Your task to perform on an android device: uninstall "PlayWell" Image 0: 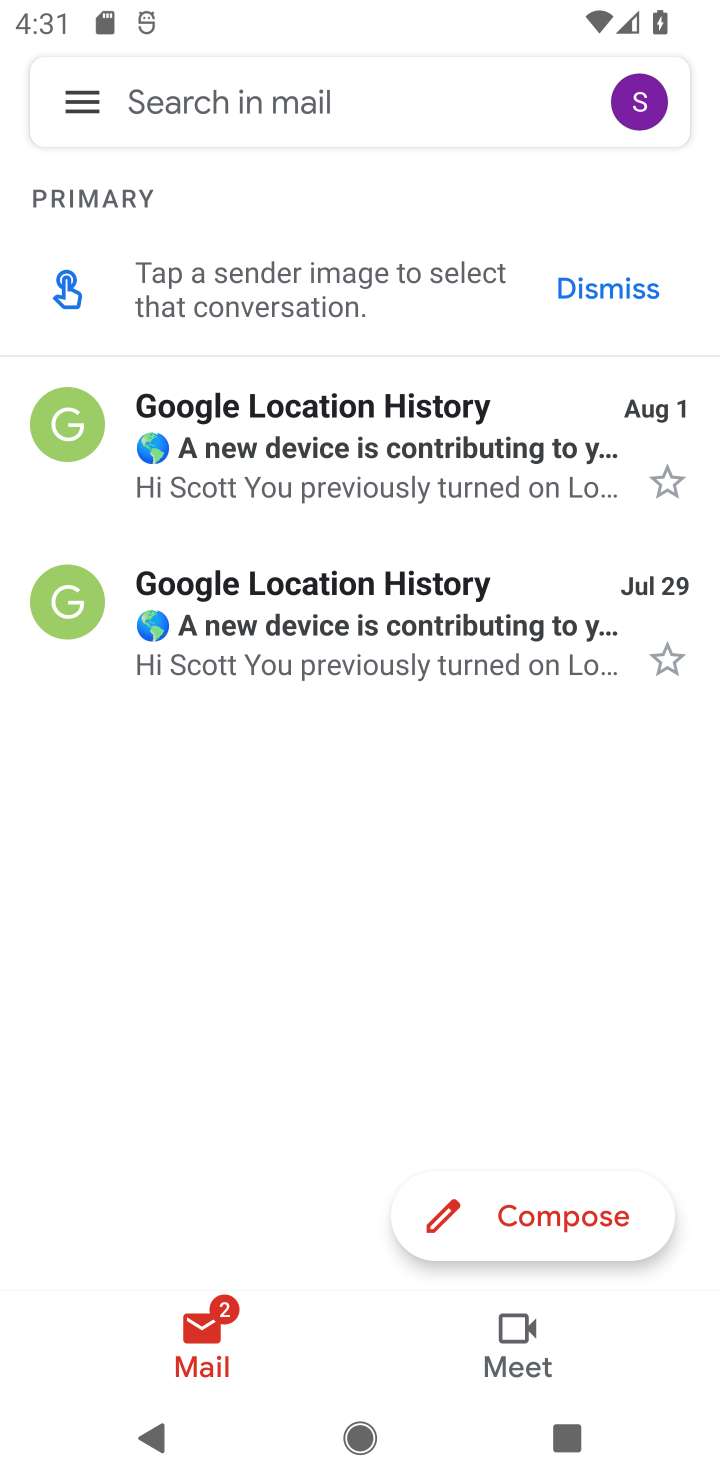
Step 0: press home button
Your task to perform on an android device: uninstall "PlayWell" Image 1: 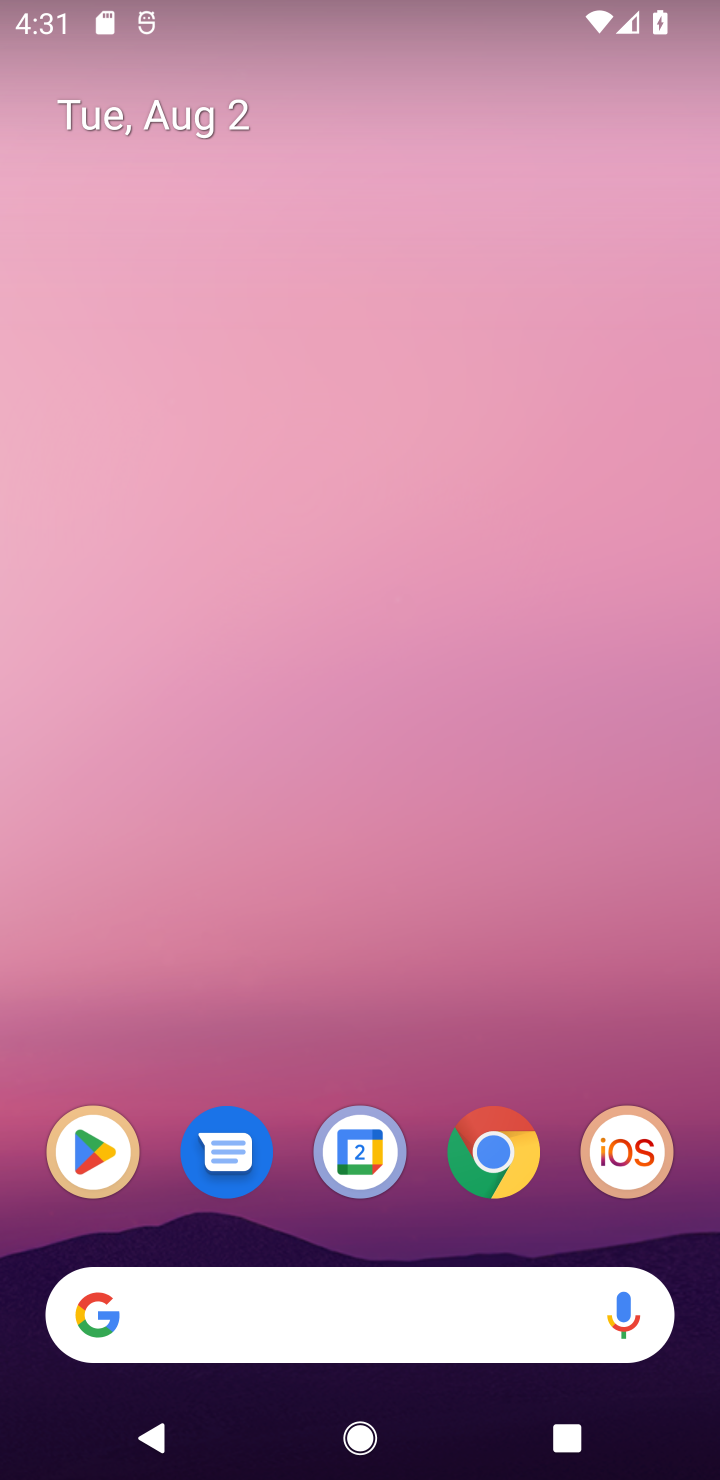
Step 1: drag from (383, 1221) to (421, 75)
Your task to perform on an android device: uninstall "PlayWell" Image 2: 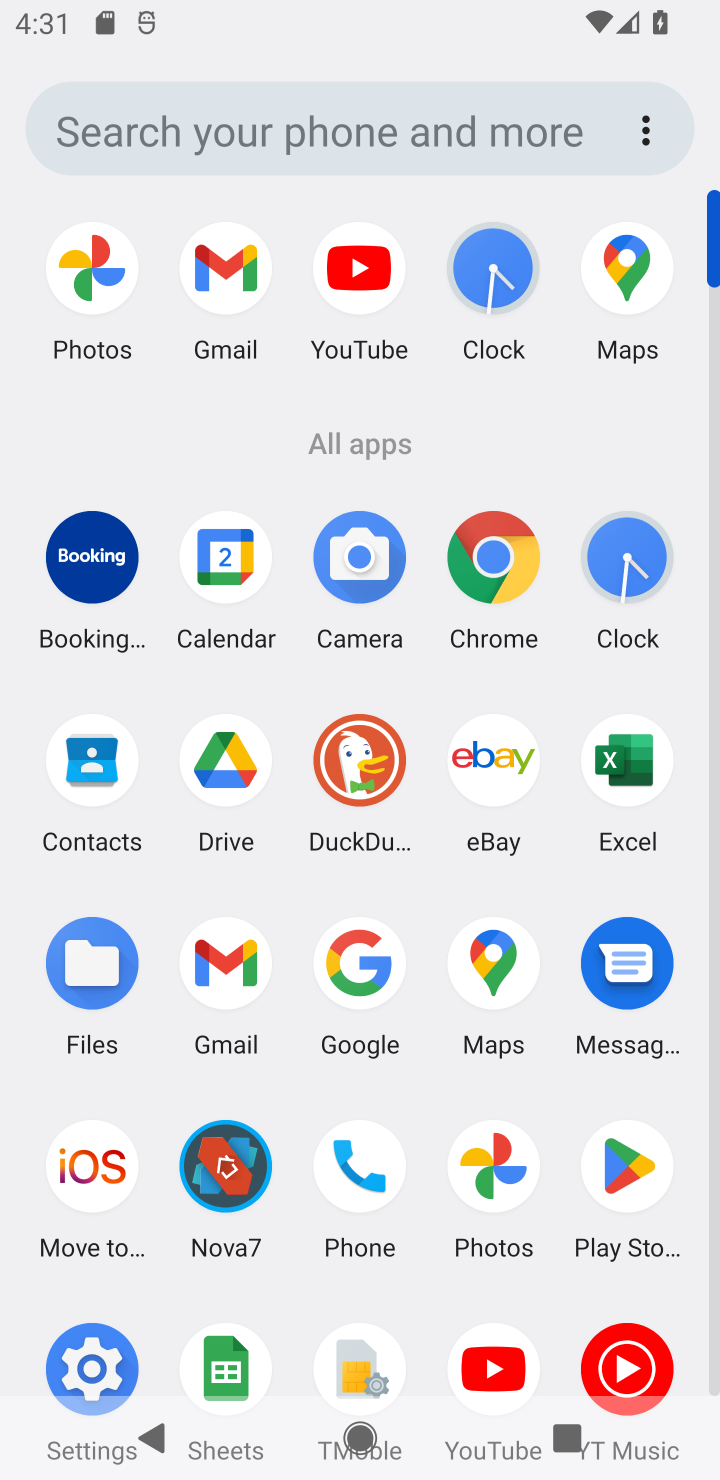
Step 2: click (625, 1161)
Your task to perform on an android device: uninstall "PlayWell" Image 3: 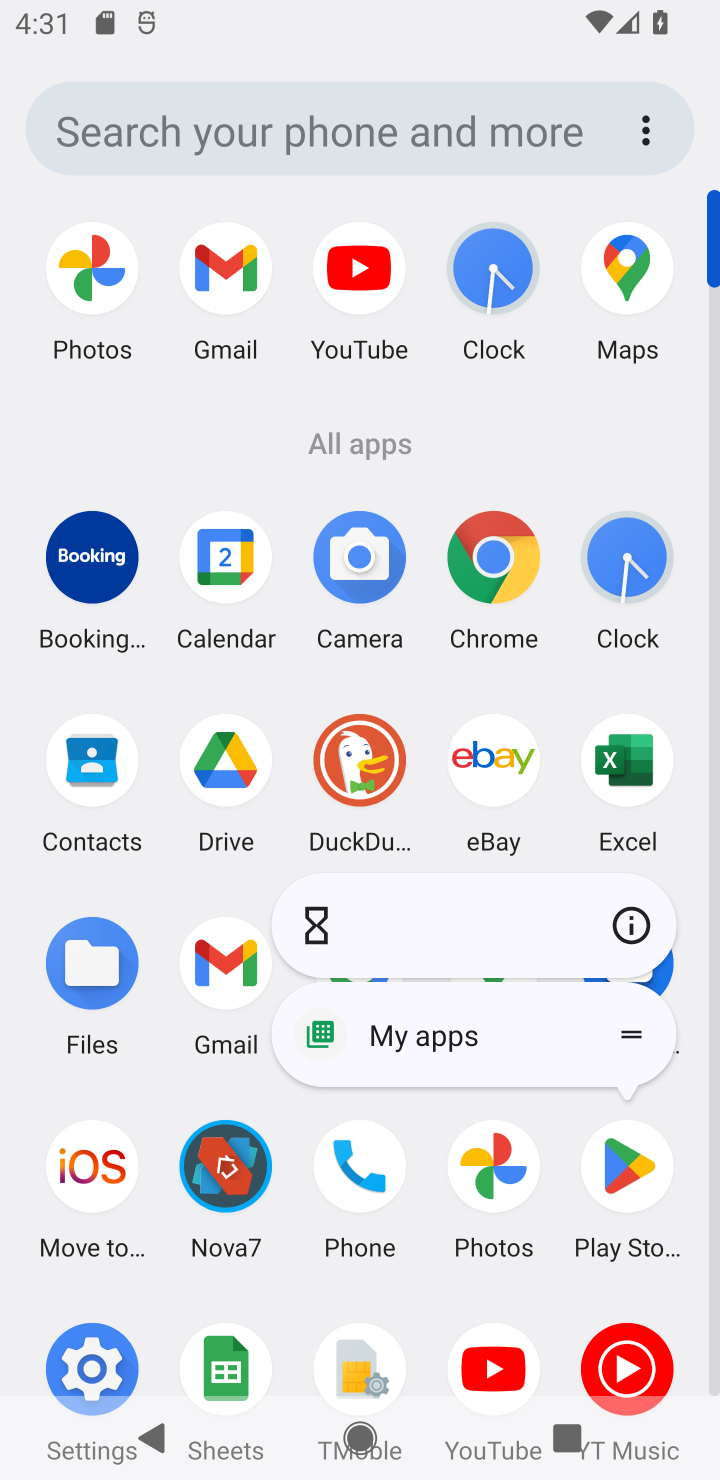
Step 3: click (622, 1177)
Your task to perform on an android device: uninstall "PlayWell" Image 4: 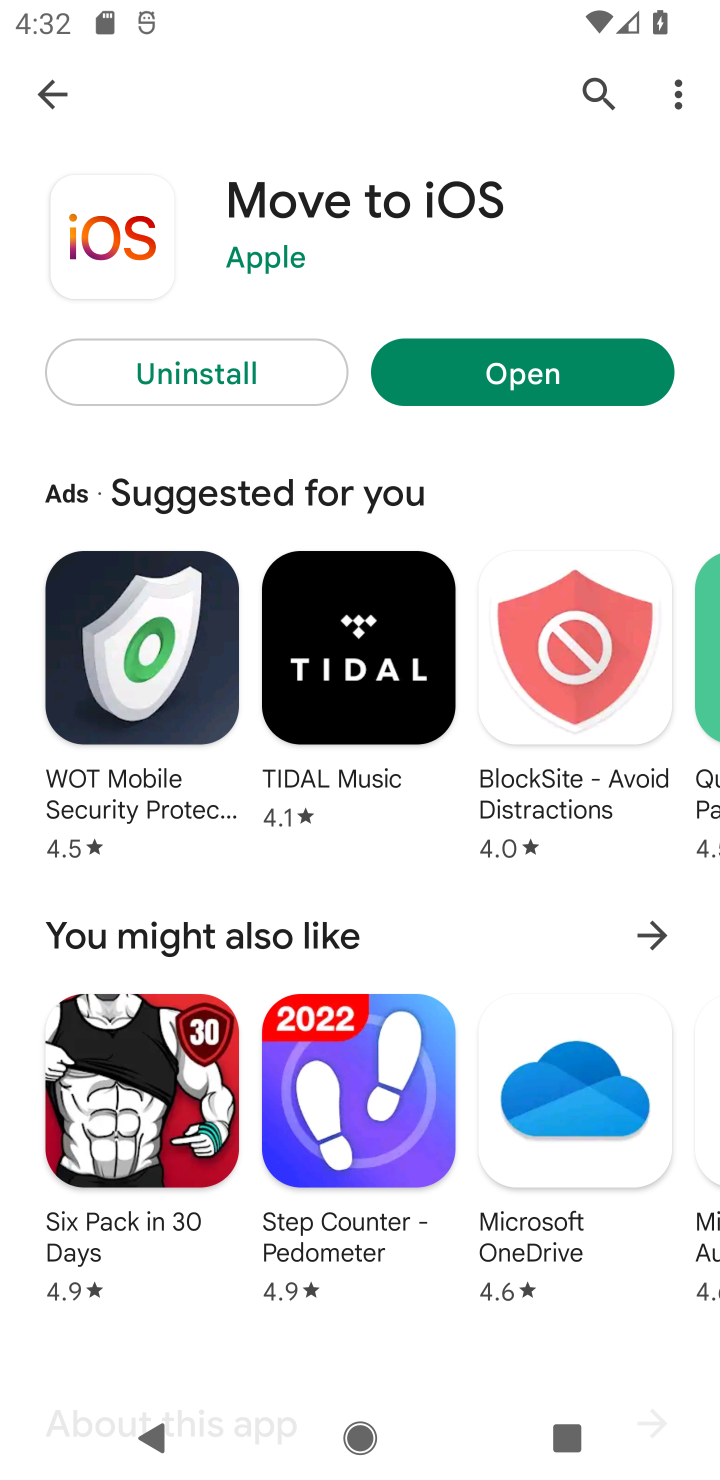
Step 4: click (59, 100)
Your task to perform on an android device: uninstall "PlayWell" Image 5: 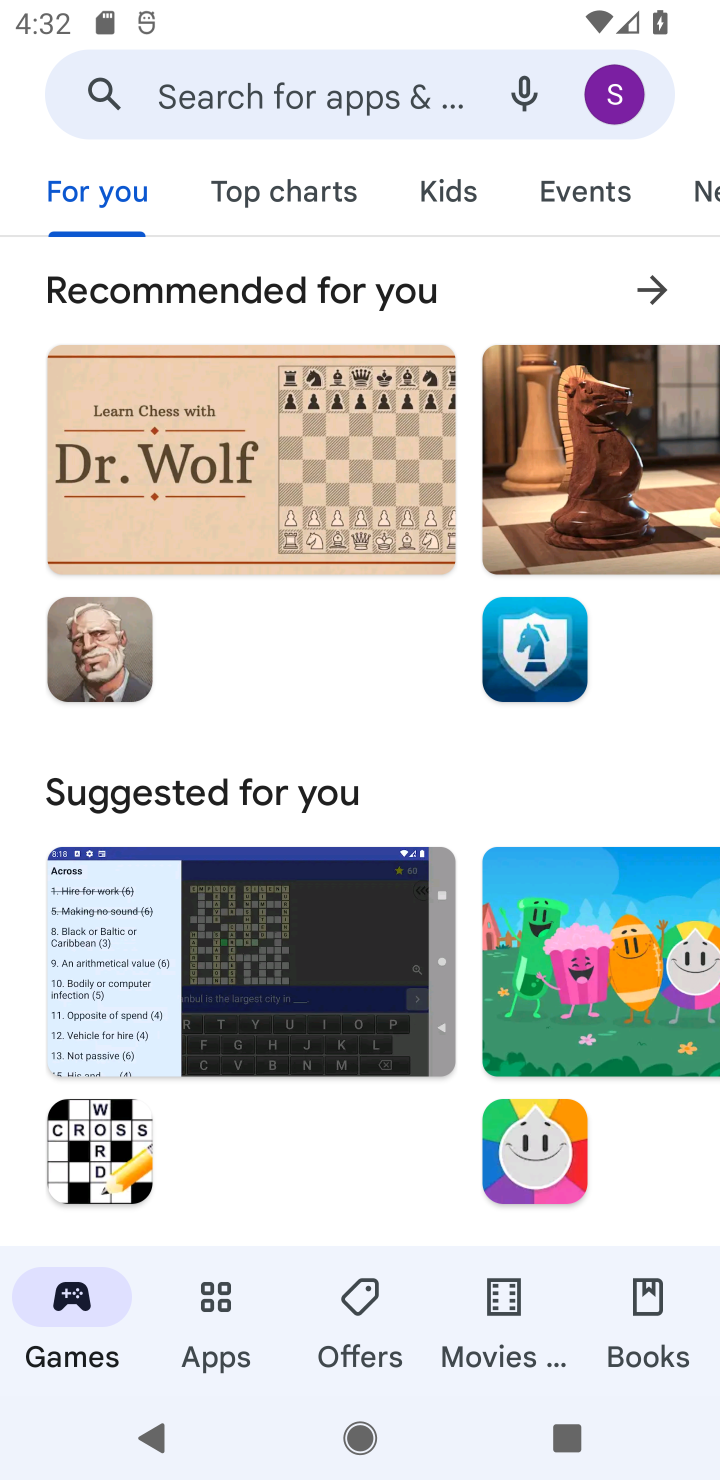
Step 5: click (295, 91)
Your task to perform on an android device: uninstall "PlayWell" Image 6: 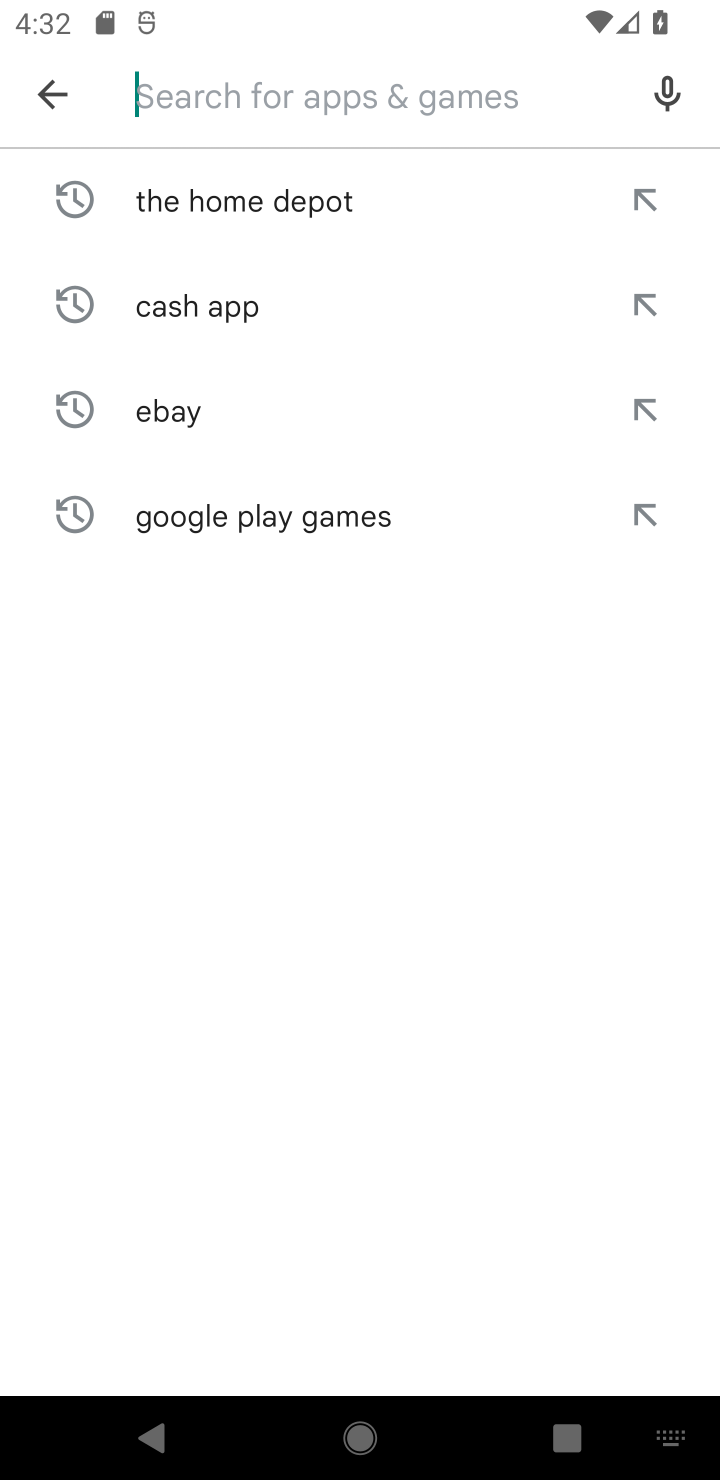
Step 6: type "PlayWell"
Your task to perform on an android device: uninstall "PlayWell" Image 7: 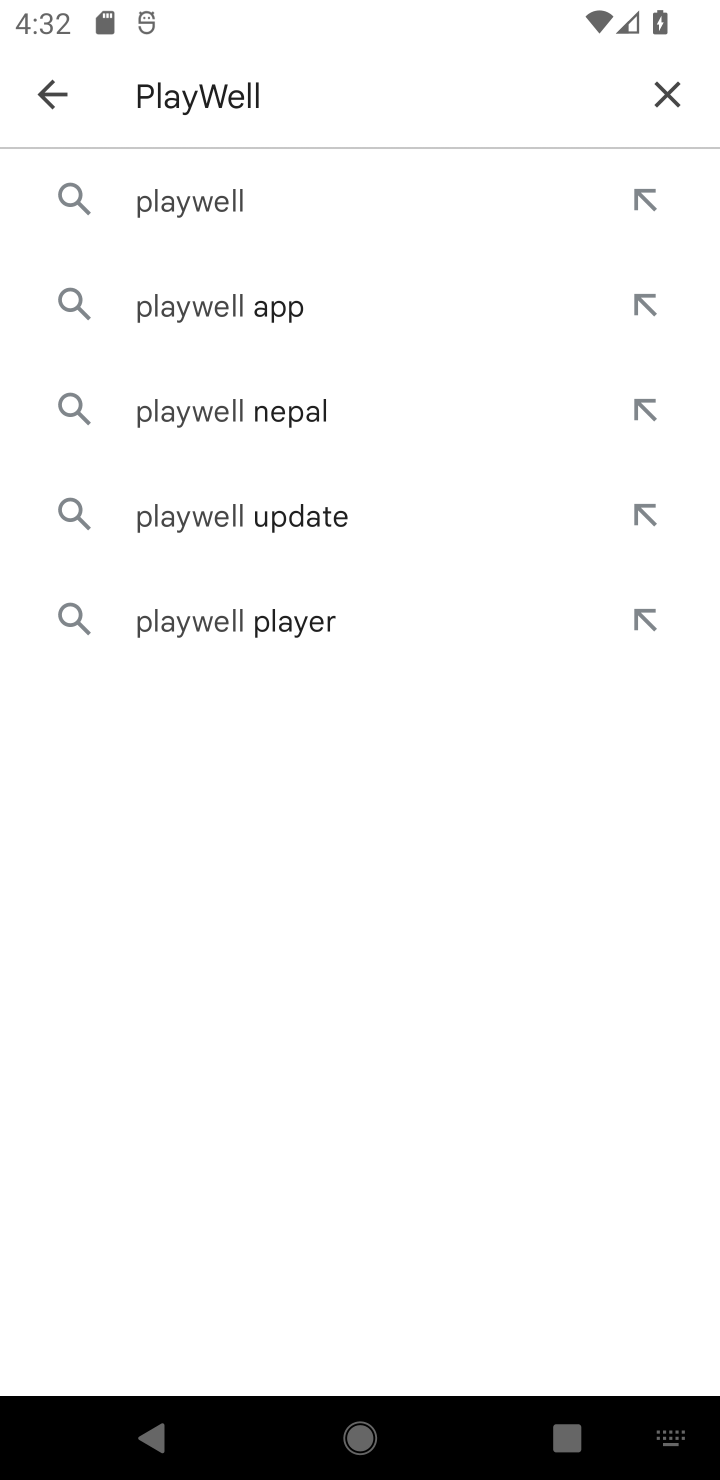
Step 7: click (222, 175)
Your task to perform on an android device: uninstall "PlayWell" Image 8: 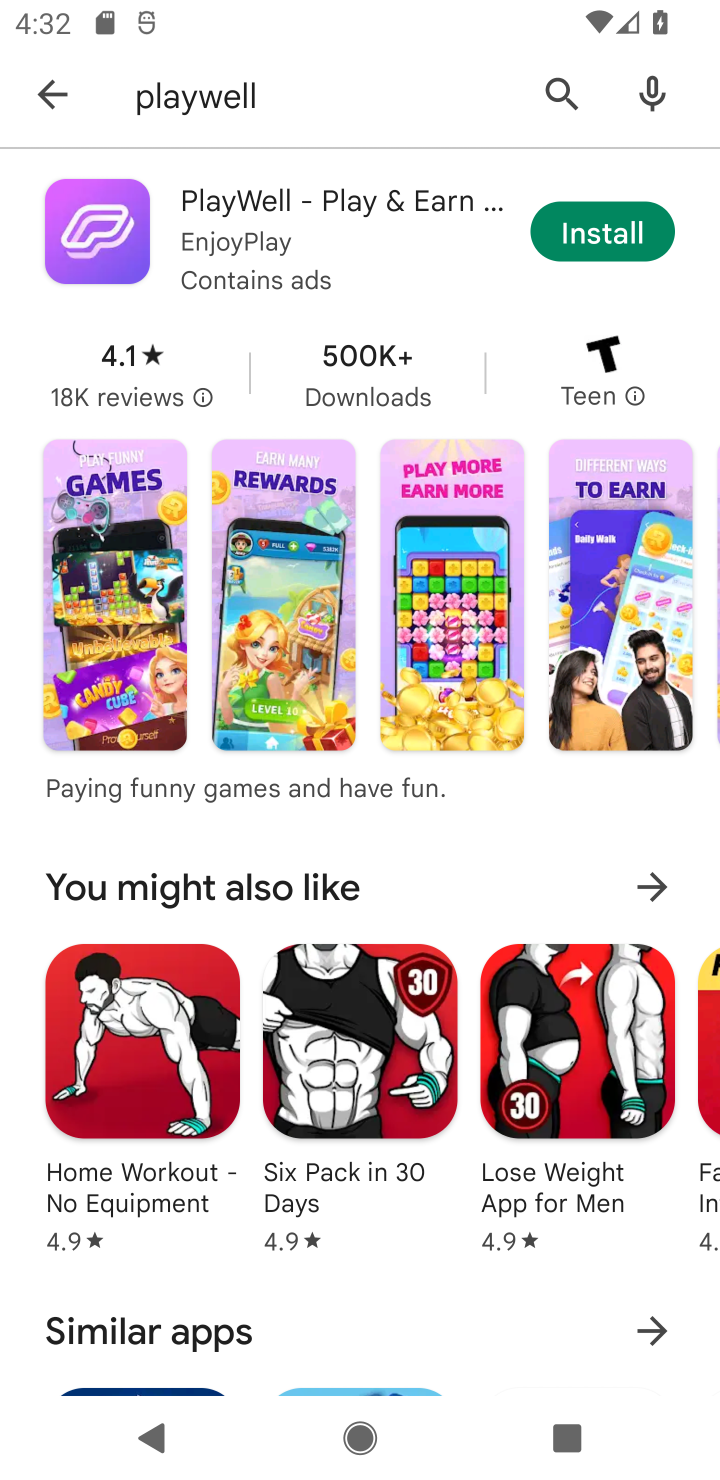
Step 8: task complete